Your task to perform on an android device: Open my contact list Image 0: 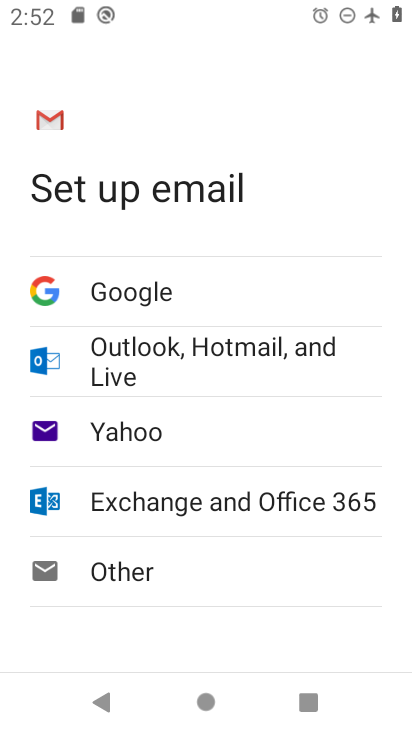
Step 0: press back button
Your task to perform on an android device: Open my contact list Image 1: 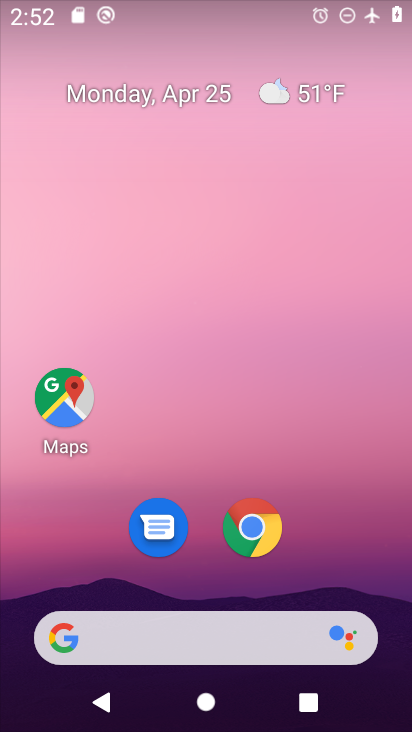
Step 1: drag from (312, 499) to (282, 115)
Your task to perform on an android device: Open my contact list Image 2: 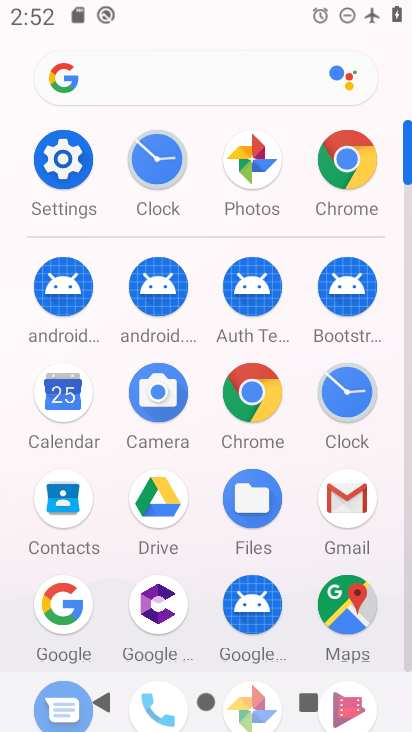
Step 2: drag from (15, 566) to (34, 211)
Your task to perform on an android device: Open my contact list Image 3: 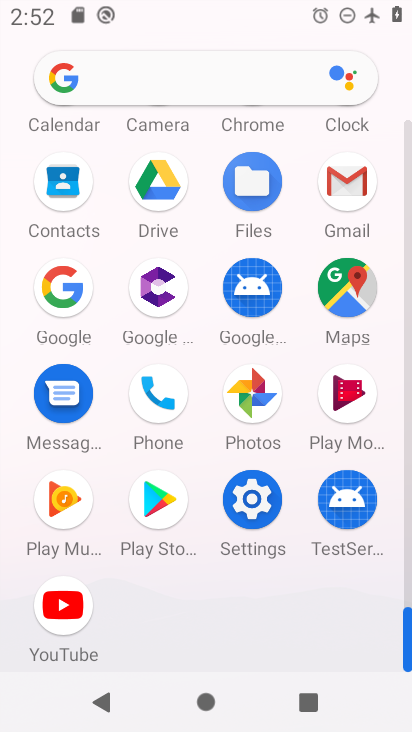
Step 3: click (56, 175)
Your task to perform on an android device: Open my contact list Image 4: 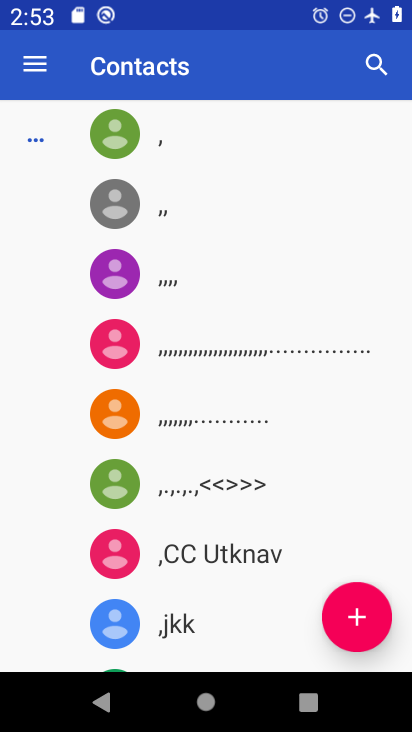
Step 4: task complete